Your task to perform on an android device: turn on javascript in the chrome app Image 0: 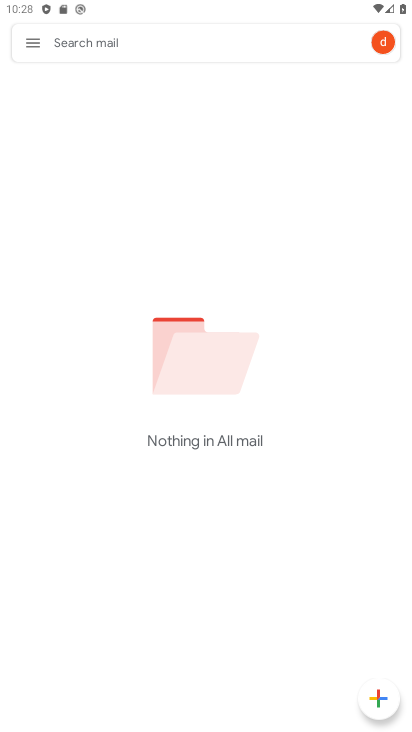
Step 0: press home button
Your task to perform on an android device: turn on javascript in the chrome app Image 1: 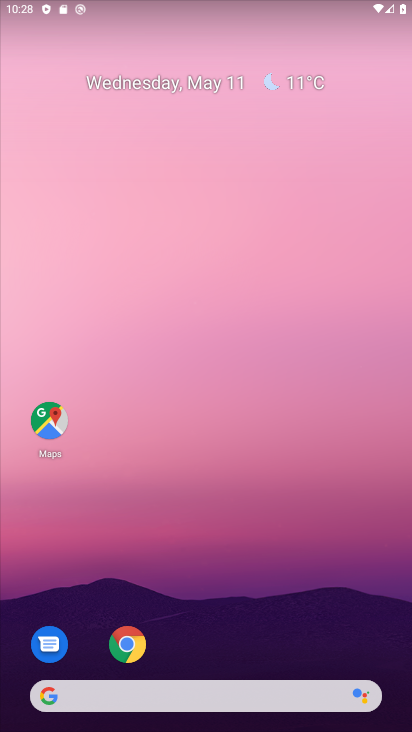
Step 1: click (137, 648)
Your task to perform on an android device: turn on javascript in the chrome app Image 2: 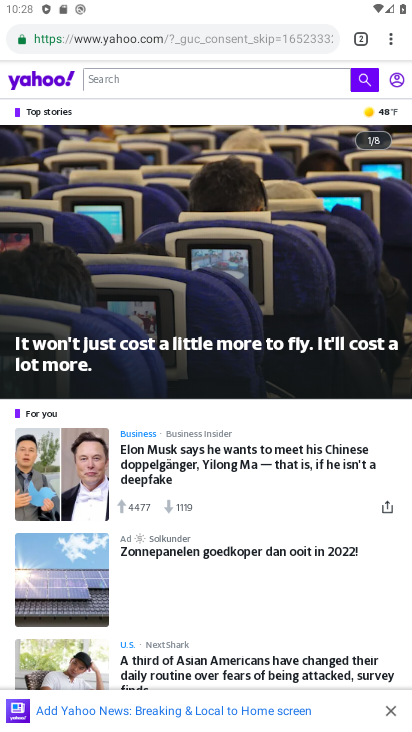
Step 2: click (391, 36)
Your task to perform on an android device: turn on javascript in the chrome app Image 3: 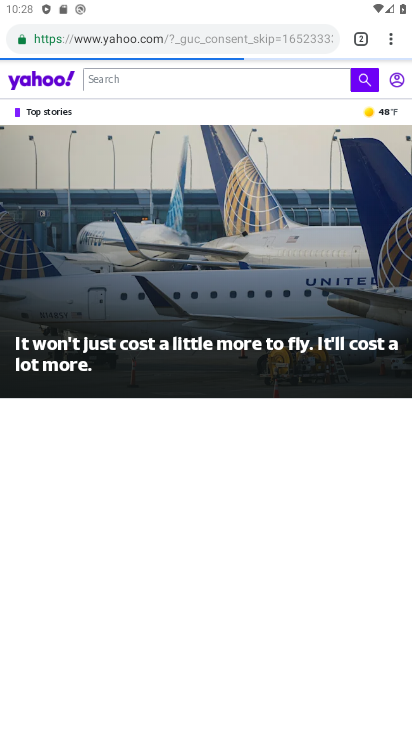
Step 3: drag from (392, 33) to (262, 467)
Your task to perform on an android device: turn on javascript in the chrome app Image 4: 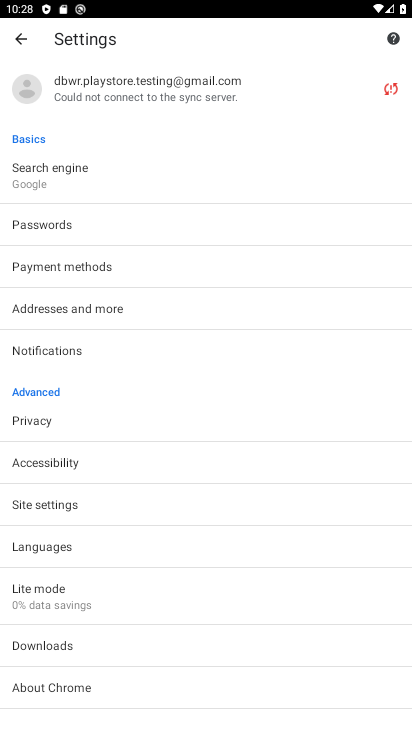
Step 4: click (38, 502)
Your task to perform on an android device: turn on javascript in the chrome app Image 5: 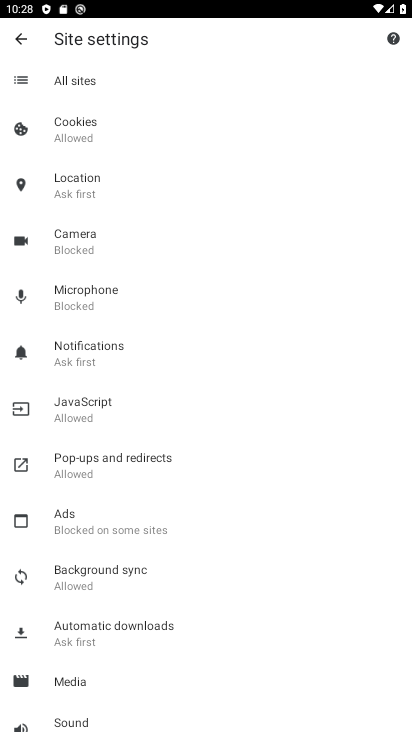
Step 5: click (90, 415)
Your task to perform on an android device: turn on javascript in the chrome app Image 6: 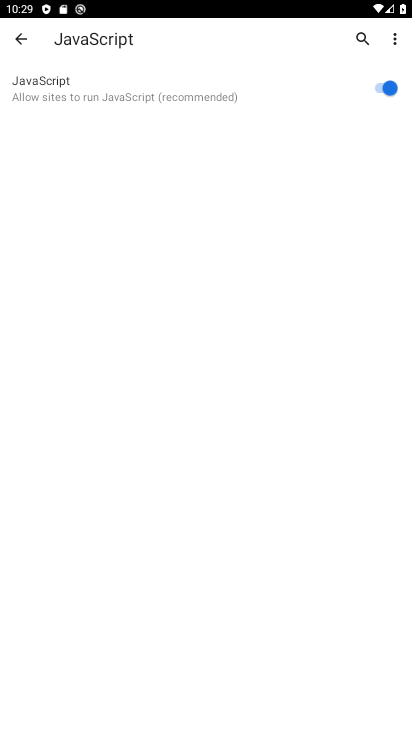
Step 6: task complete